Your task to perform on an android device: Open Google Chrome Image 0: 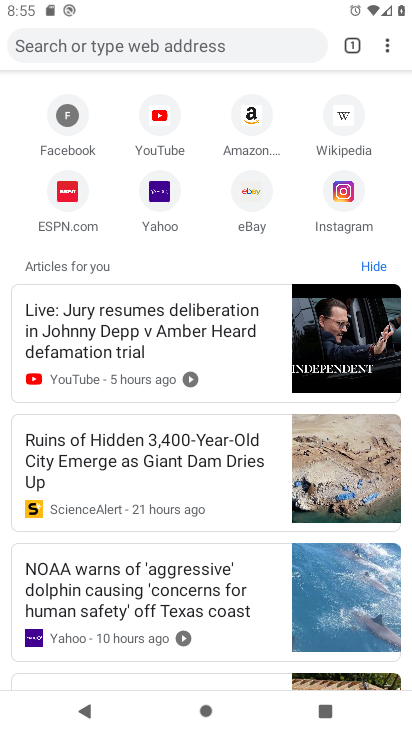
Step 0: press home button
Your task to perform on an android device: Open Google Chrome Image 1: 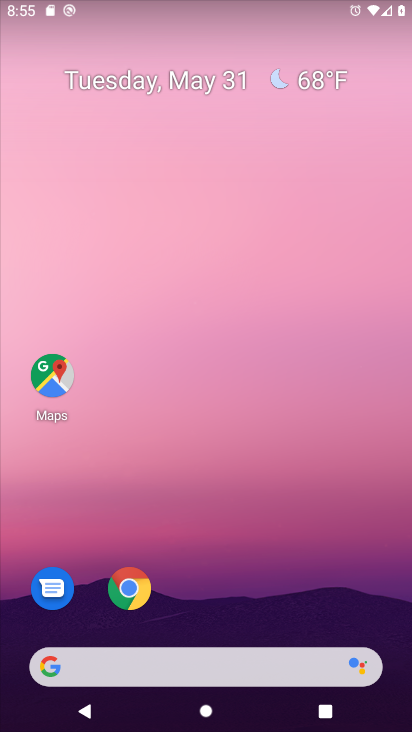
Step 1: click (128, 590)
Your task to perform on an android device: Open Google Chrome Image 2: 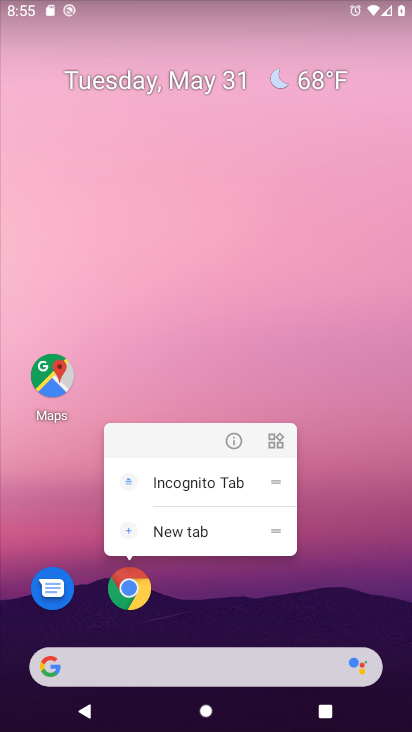
Step 2: click (134, 595)
Your task to perform on an android device: Open Google Chrome Image 3: 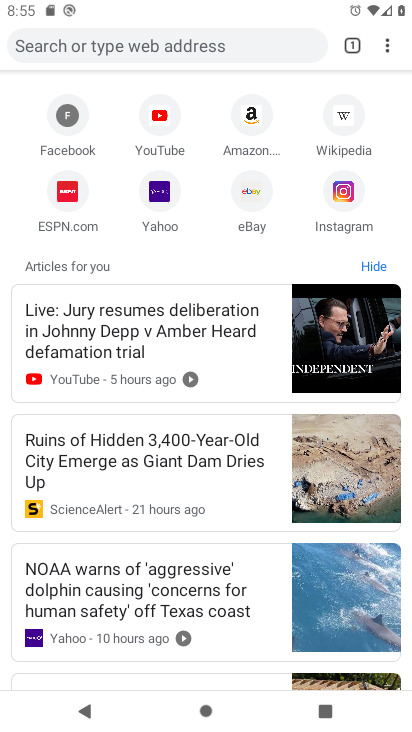
Step 3: task complete